Your task to perform on an android device: Go to Google Image 0: 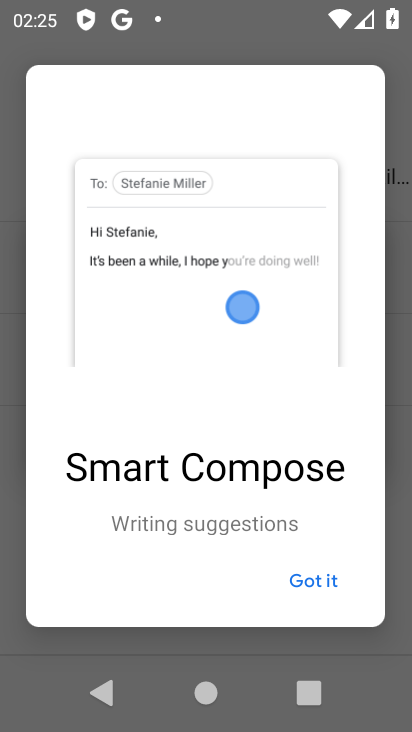
Step 0: press home button
Your task to perform on an android device: Go to Google Image 1: 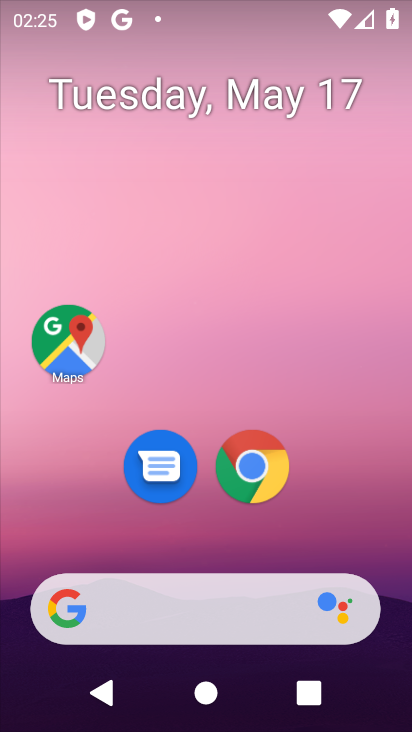
Step 1: drag from (364, 502) to (310, 0)
Your task to perform on an android device: Go to Google Image 2: 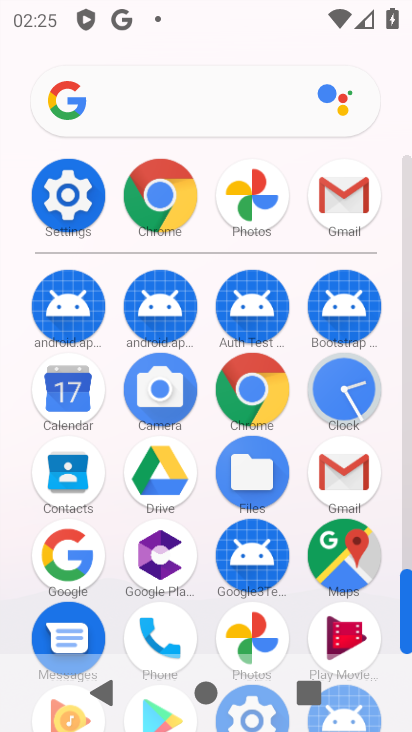
Step 2: click (73, 552)
Your task to perform on an android device: Go to Google Image 3: 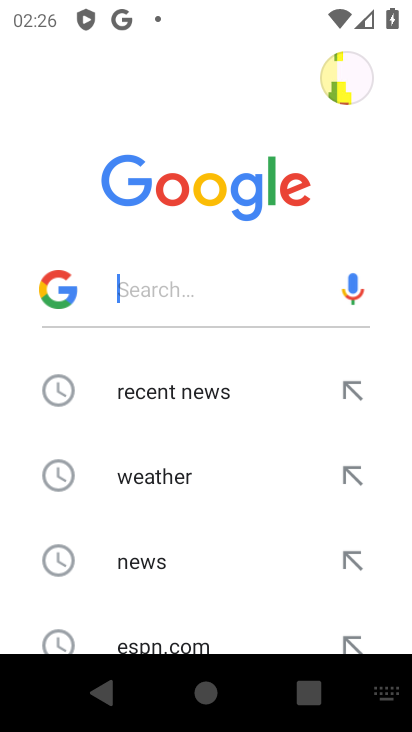
Step 3: task complete